Your task to perform on an android device: turn off improve location accuracy Image 0: 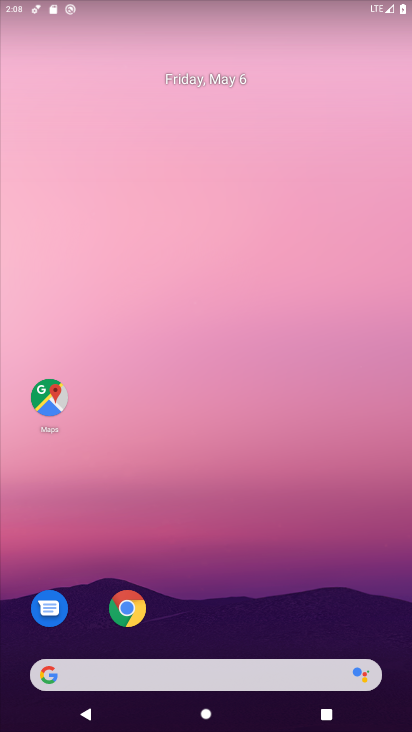
Step 0: drag from (217, 616) to (242, 152)
Your task to perform on an android device: turn off improve location accuracy Image 1: 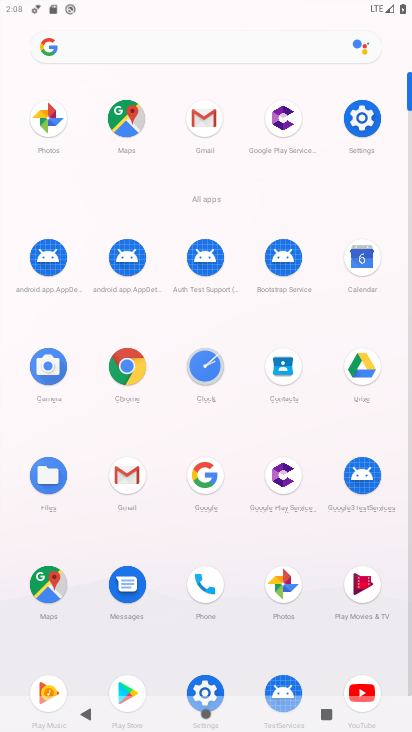
Step 1: click (371, 131)
Your task to perform on an android device: turn off improve location accuracy Image 2: 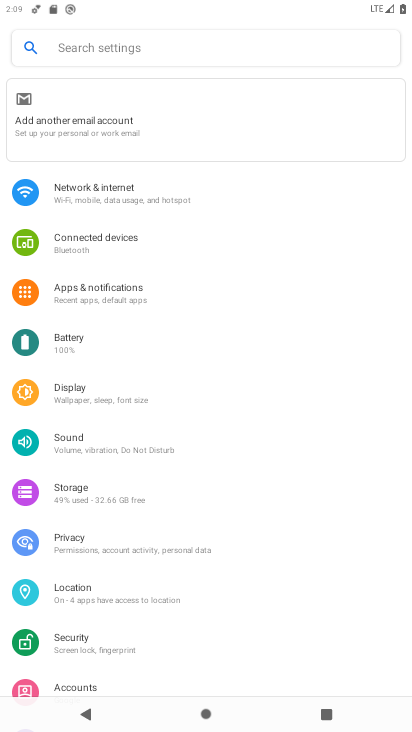
Step 2: click (101, 594)
Your task to perform on an android device: turn off improve location accuracy Image 3: 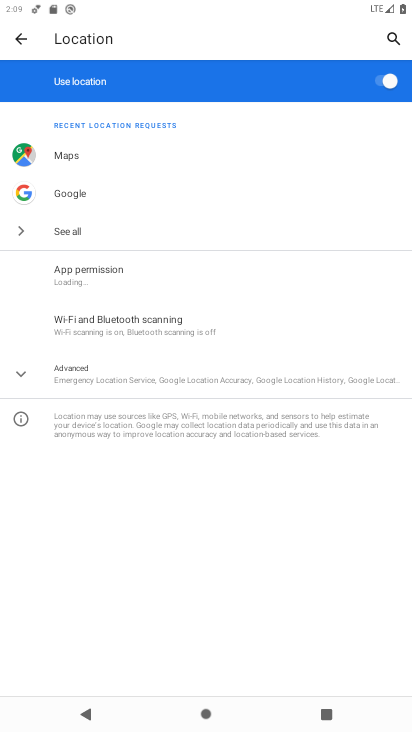
Step 3: click (78, 374)
Your task to perform on an android device: turn off improve location accuracy Image 4: 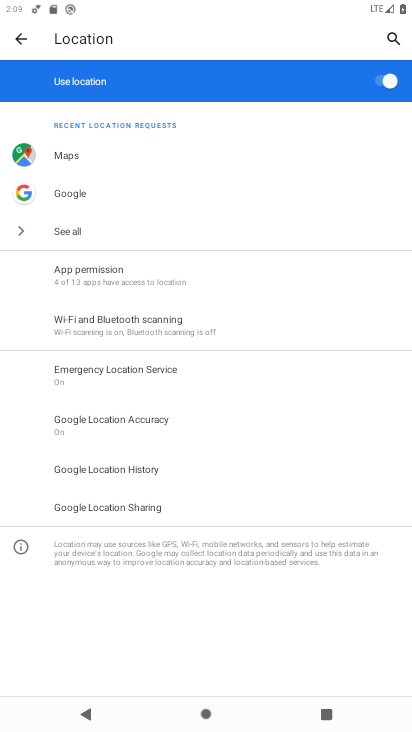
Step 4: click (115, 432)
Your task to perform on an android device: turn off improve location accuracy Image 5: 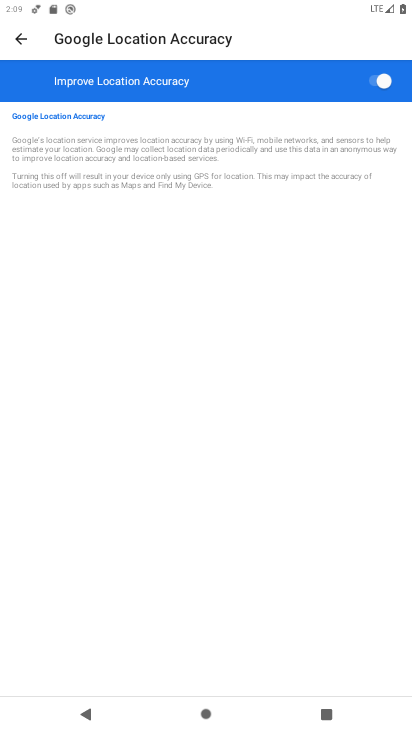
Step 5: click (363, 83)
Your task to perform on an android device: turn off improve location accuracy Image 6: 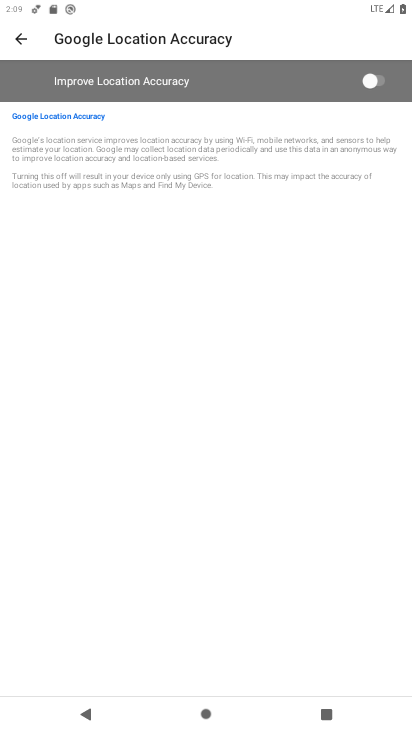
Step 6: task complete